Your task to perform on an android device: open chrome privacy settings Image 0: 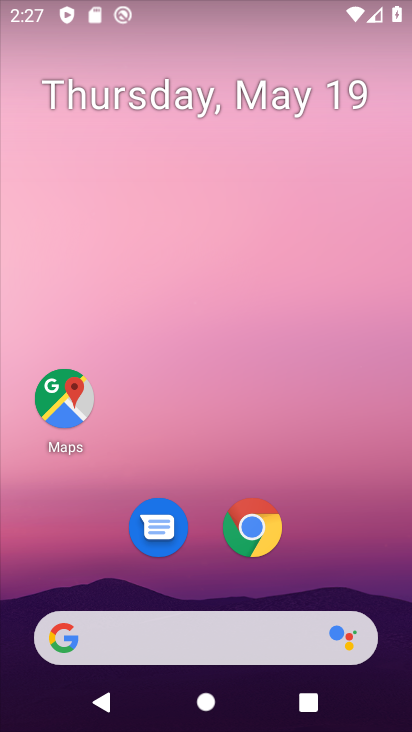
Step 0: drag from (265, 703) to (220, 14)
Your task to perform on an android device: open chrome privacy settings Image 1: 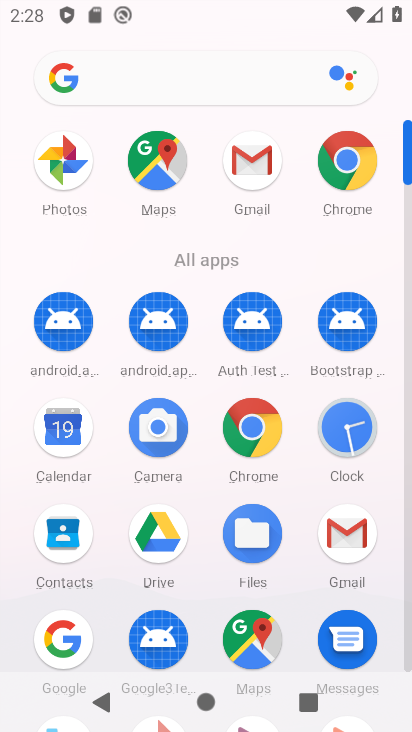
Step 1: click (351, 160)
Your task to perform on an android device: open chrome privacy settings Image 2: 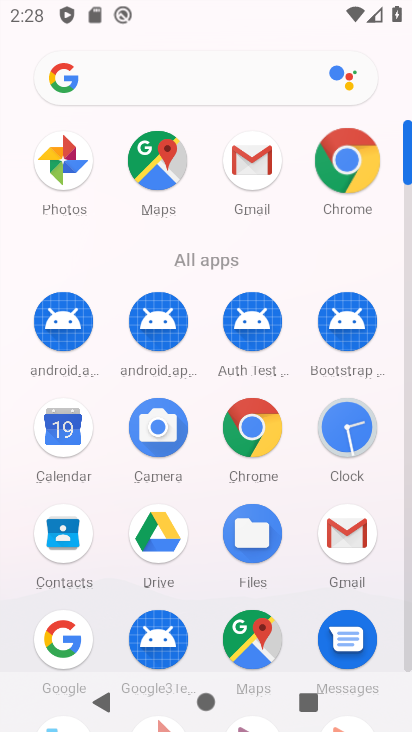
Step 2: click (351, 160)
Your task to perform on an android device: open chrome privacy settings Image 3: 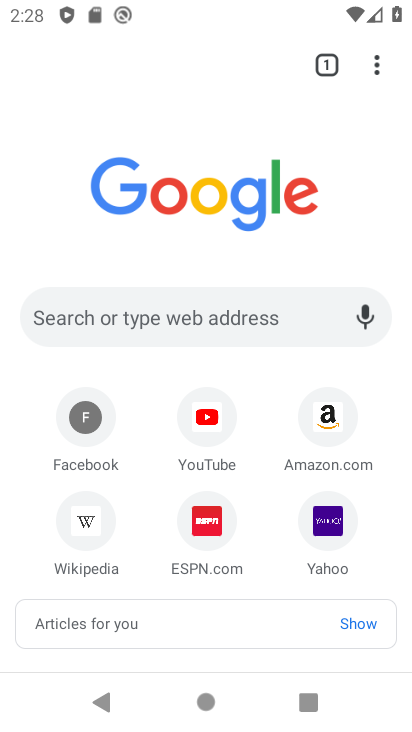
Step 3: drag from (376, 72) to (134, 564)
Your task to perform on an android device: open chrome privacy settings Image 4: 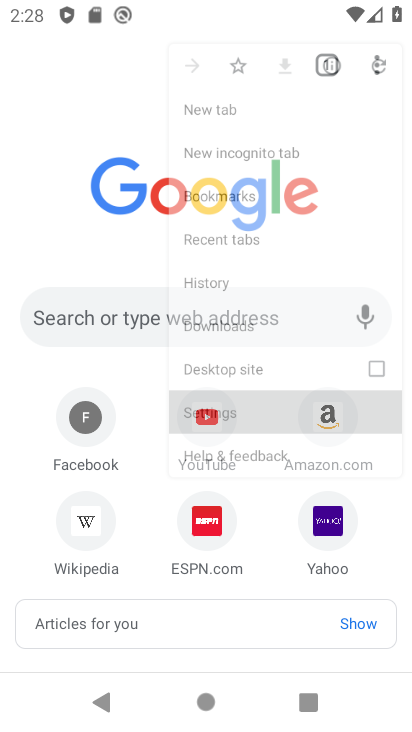
Step 4: click (135, 564)
Your task to perform on an android device: open chrome privacy settings Image 5: 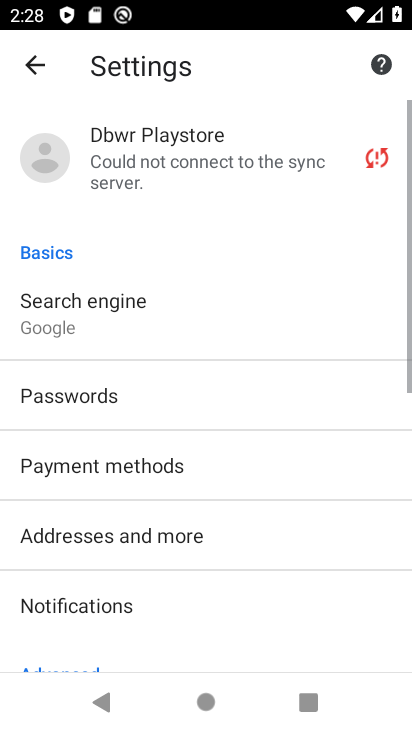
Step 5: drag from (210, 504) to (192, 152)
Your task to perform on an android device: open chrome privacy settings Image 6: 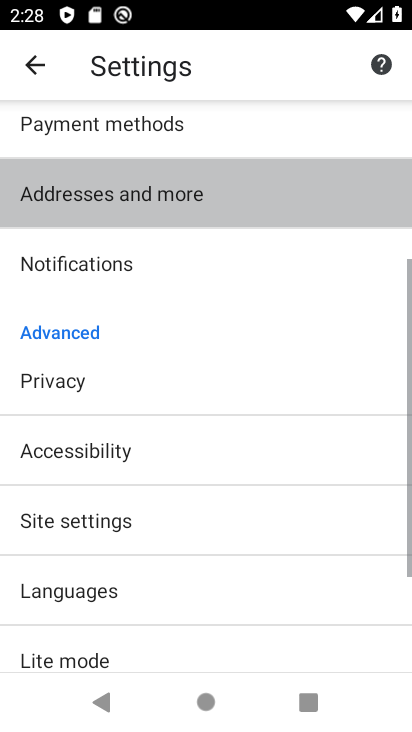
Step 6: drag from (226, 497) to (210, 1)
Your task to perform on an android device: open chrome privacy settings Image 7: 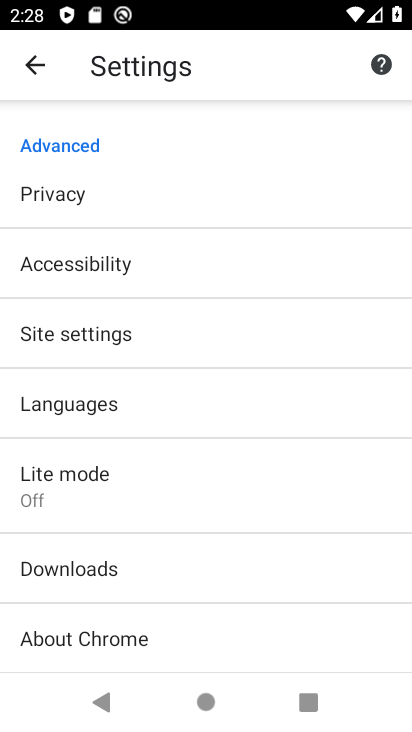
Step 7: drag from (82, 590) to (87, 138)
Your task to perform on an android device: open chrome privacy settings Image 8: 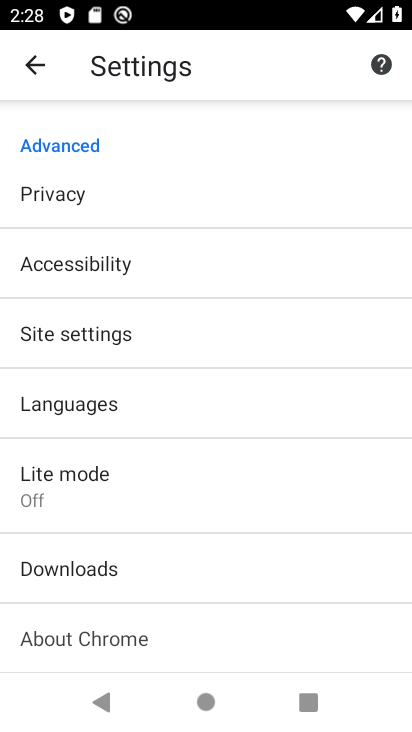
Step 8: drag from (126, 367) to (129, 101)
Your task to perform on an android device: open chrome privacy settings Image 9: 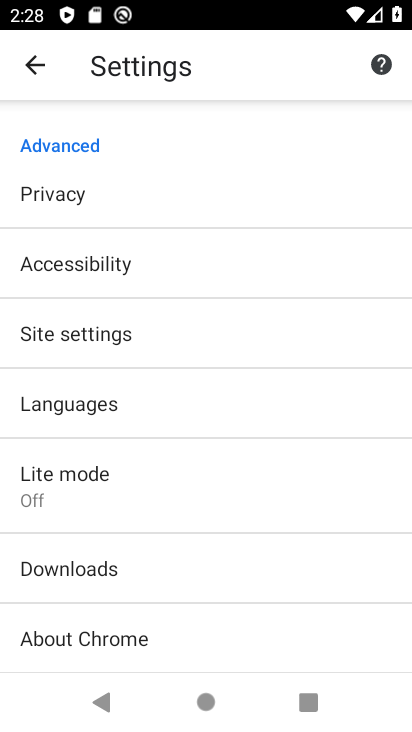
Step 9: drag from (131, 558) to (82, 113)
Your task to perform on an android device: open chrome privacy settings Image 10: 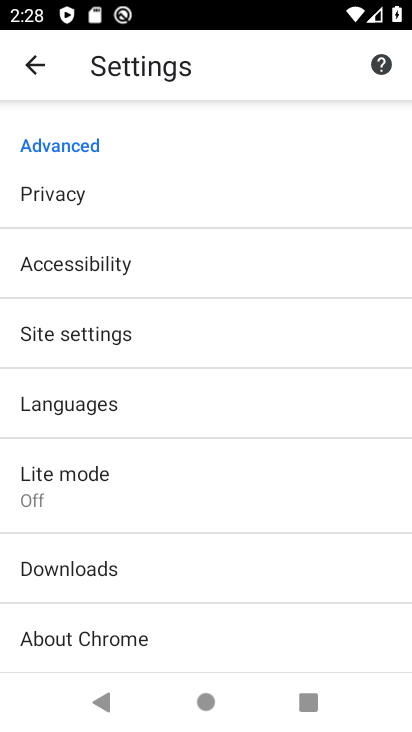
Step 10: click (61, 194)
Your task to perform on an android device: open chrome privacy settings Image 11: 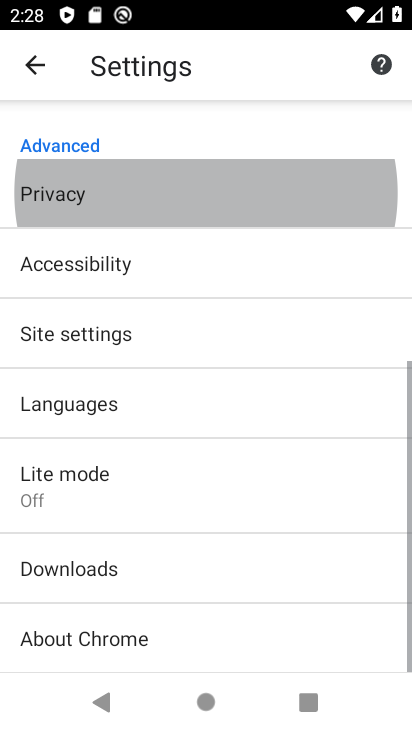
Step 11: click (61, 194)
Your task to perform on an android device: open chrome privacy settings Image 12: 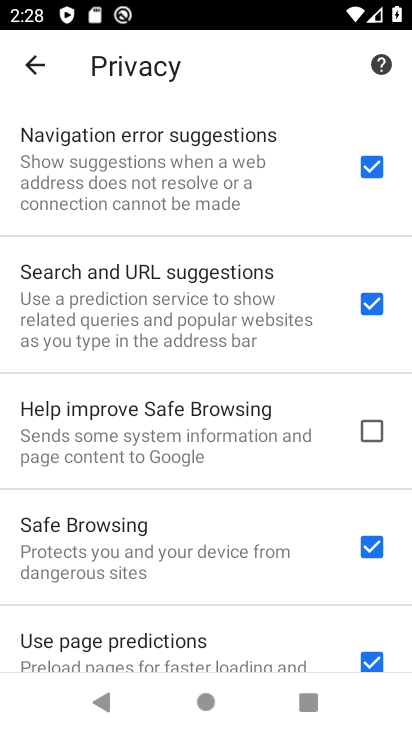
Step 12: task complete